Your task to perform on an android device: clear all cookies in the chrome app Image 0: 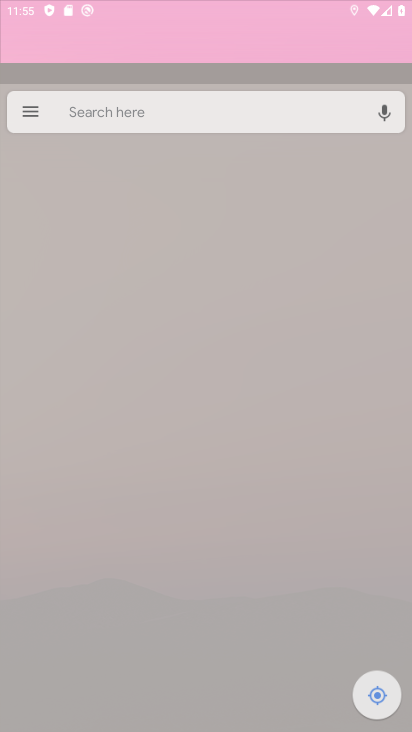
Step 0: drag from (363, 616) to (364, 172)
Your task to perform on an android device: clear all cookies in the chrome app Image 1: 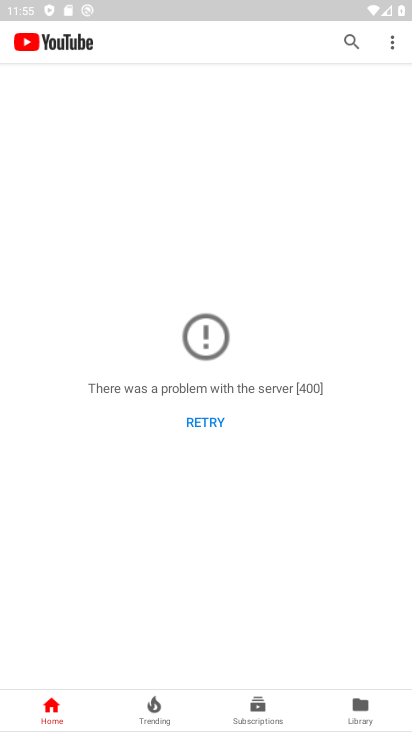
Step 1: press home button
Your task to perform on an android device: clear all cookies in the chrome app Image 2: 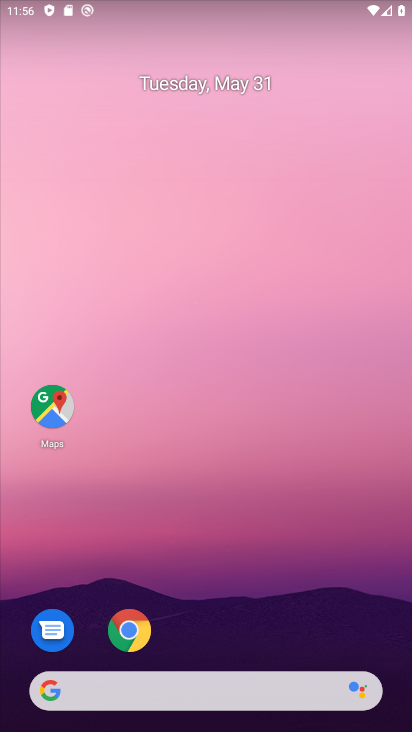
Step 2: drag from (368, 608) to (375, 154)
Your task to perform on an android device: clear all cookies in the chrome app Image 3: 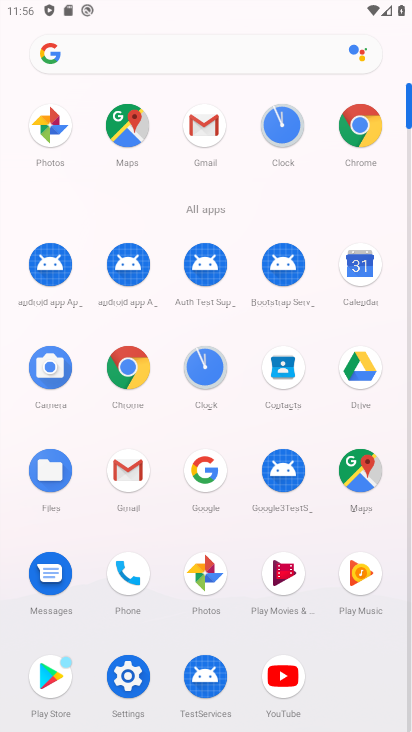
Step 3: drag from (321, 637) to (295, 398)
Your task to perform on an android device: clear all cookies in the chrome app Image 4: 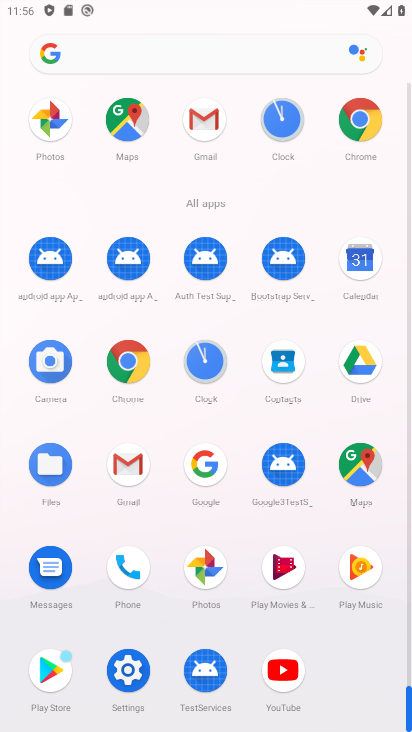
Step 4: click (123, 364)
Your task to perform on an android device: clear all cookies in the chrome app Image 5: 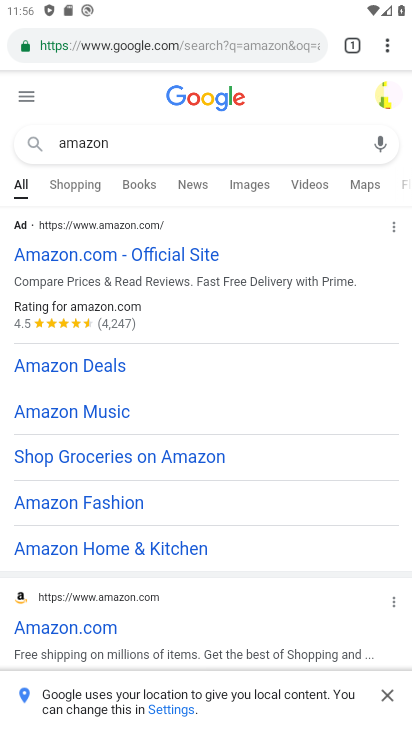
Step 5: click (386, 51)
Your task to perform on an android device: clear all cookies in the chrome app Image 6: 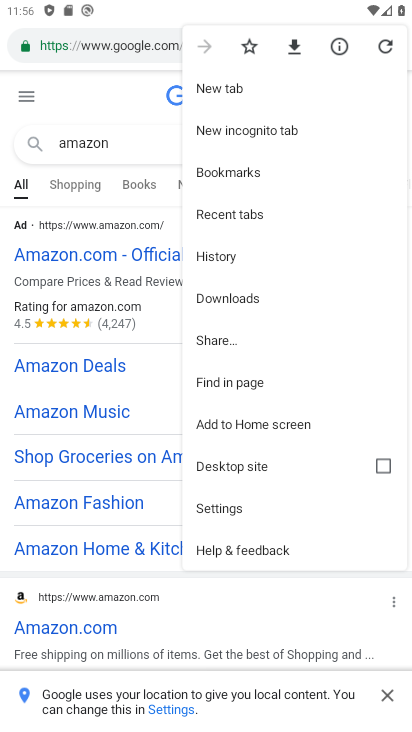
Step 6: click (242, 508)
Your task to perform on an android device: clear all cookies in the chrome app Image 7: 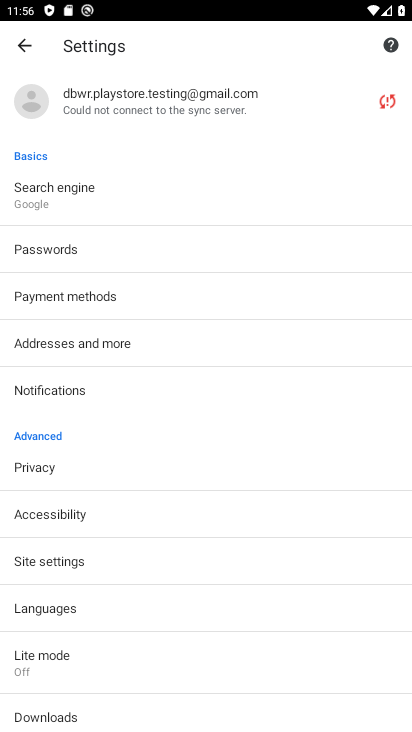
Step 7: drag from (246, 519) to (246, 384)
Your task to perform on an android device: clear all cookies in the chrome app Image 8: 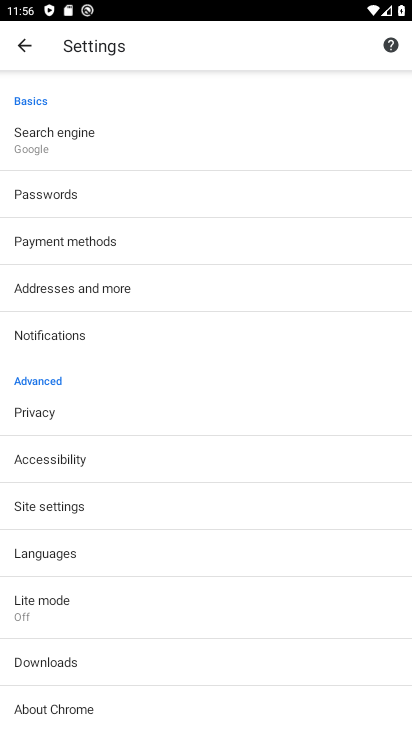
Step 8: drag from (284, 532) to (274, 327)
Your task to perform on an android device: clear all cookies in the chrome app Image 9: 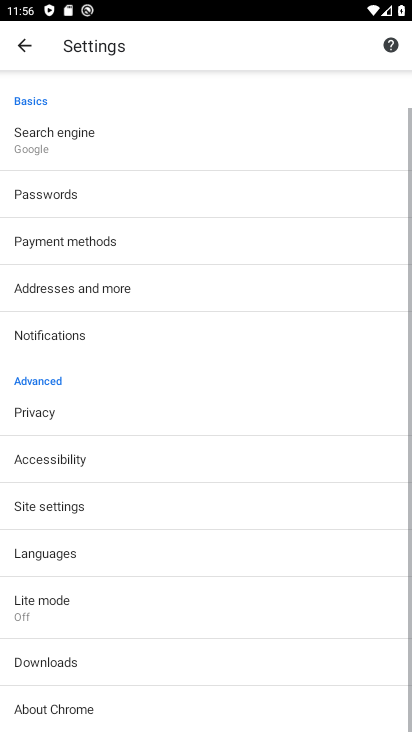
Step 9: drag from (286, 250) to (287, 399)
Your task to perform on an android device: clear all cookies in the chrome app Image 10: 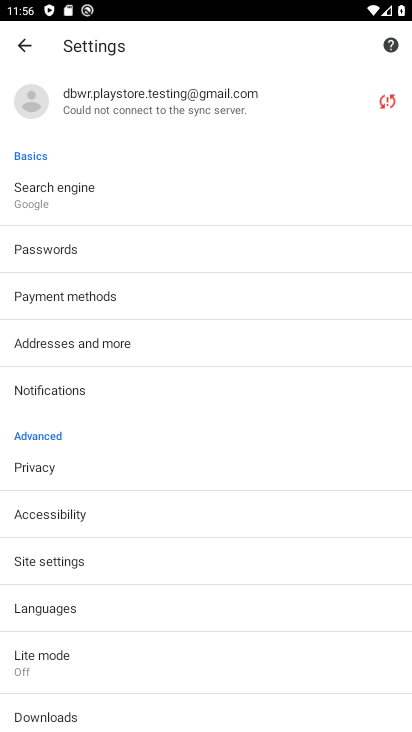
Step 10: click (134, 475)
Your task to perform on an android device: clear all cookies in the chrome app Image 11: 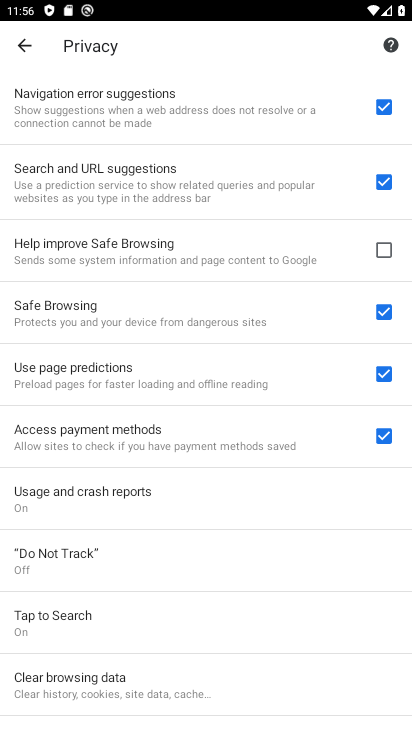
Step 11: drag from (211, 622) to (205, 507)
Your task to perform on an android device: clear all cookies in the chrome app Image 12: 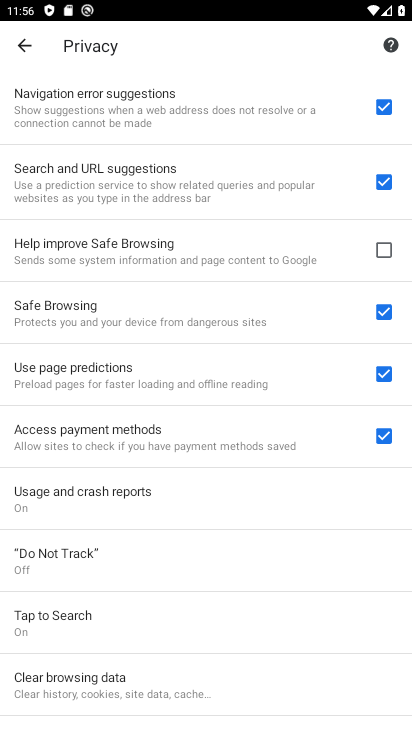
Step 12: click (163, 698)
Your task to perform on an android device: clear all cookies in the chrome app Image 13: 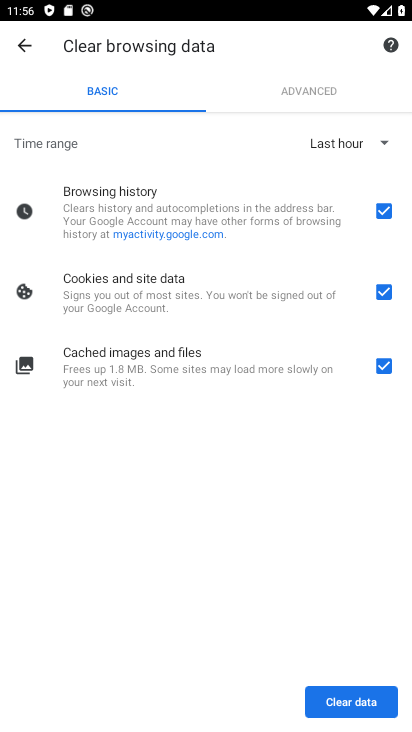
Step 13: click (352, 692)
Your task to perform on an android device: clear all cookies in the chrome app Image 14: 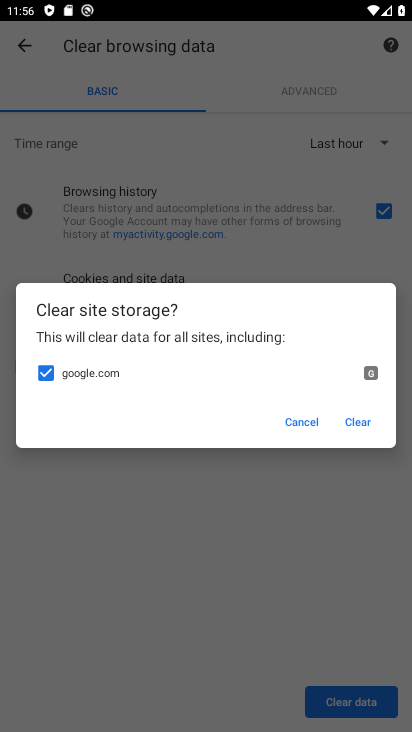
Step 14: click (365, 428)
Your task to perform on an android device: clear all cookies in the chrome app Image 15: 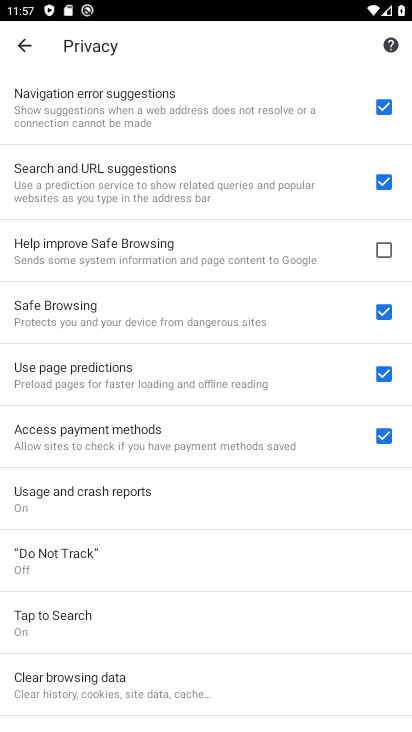
Step 15: task complete